Your task to perform on an android device: allow notifications from all sites in the chrome app Image 0: 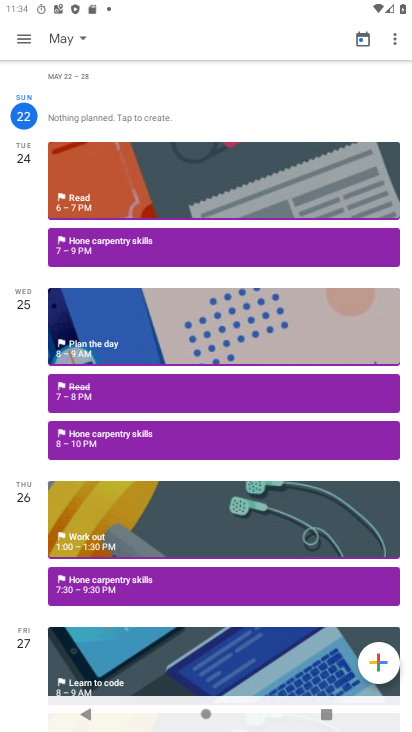
Step 0: press home button
Your task to perform on an android device: allow notifications from all sites in the chrome app Image 1: 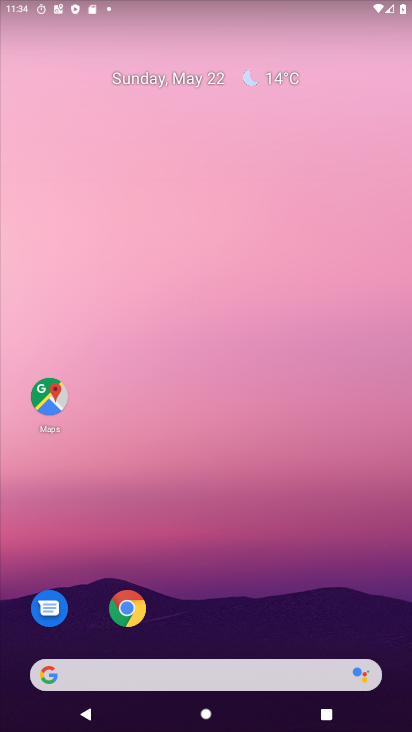
Step 1: drag from (217, 707) to (204, 157)
Your task to perform on an android device: allow notifications from all sites in the chrome app Image 2: 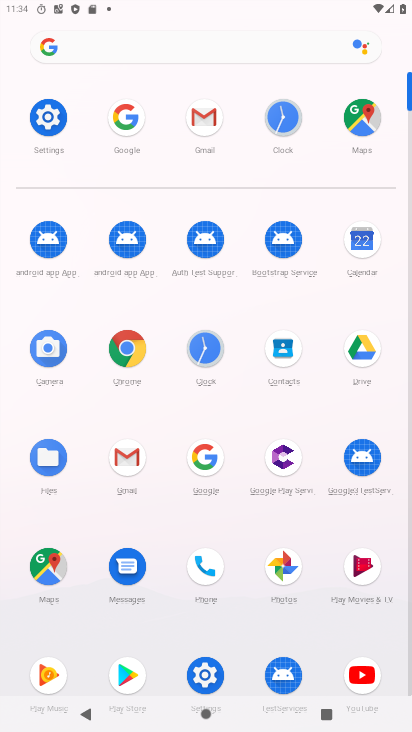
Step 2: click (129, 349)
Your task to perform on an android device: allow notifications from all sites in the chrome app Image 3: 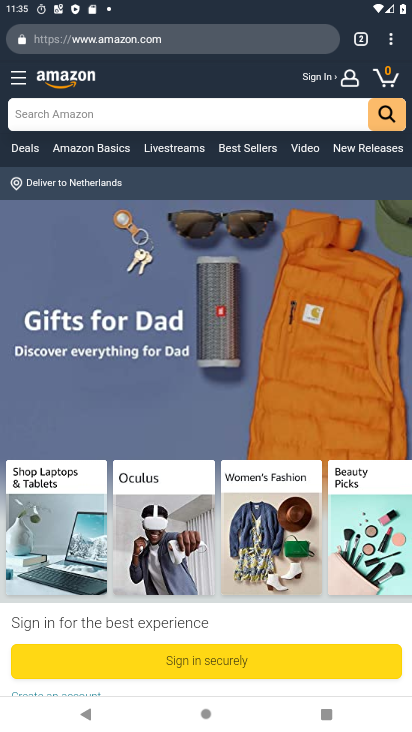
Step 3: click (393, 46)
Your task to perform on an android device: allow notifications from all sites in the chrome app Image 4: 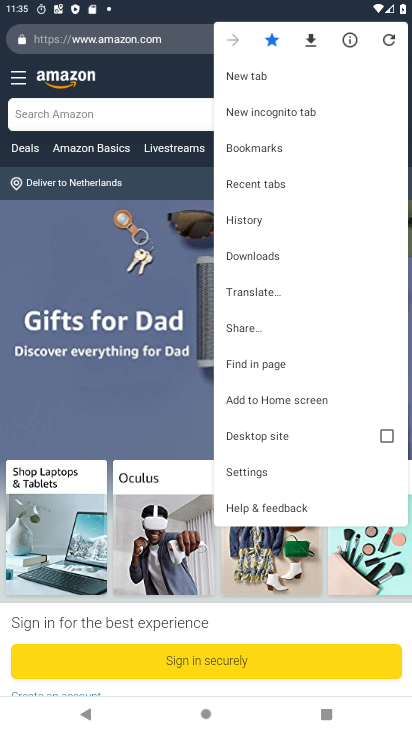
Step 4: click (247, 468)
Your task to perform on an android device: allow notifications from all sites in the chrome app Image 5: 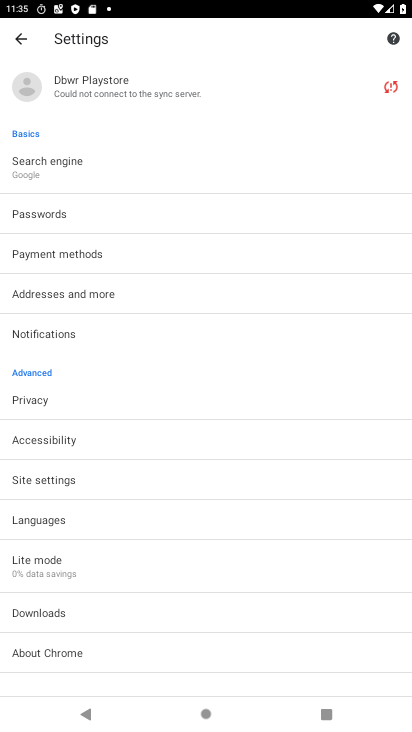
Step 5: click (47, 473)
Your task to perform on an android device: allow notifications from all sites in the chrome app Image 6: 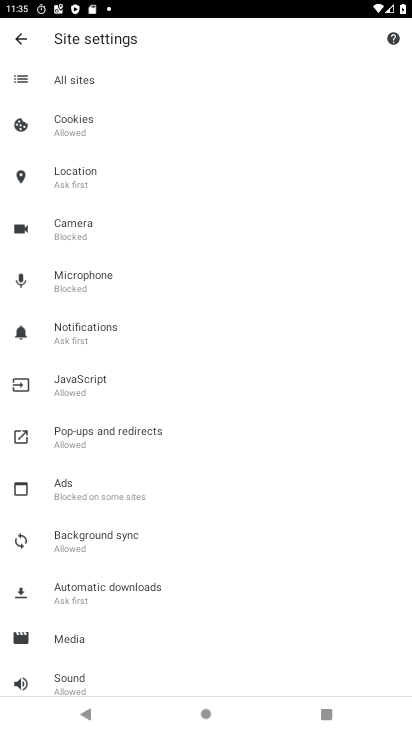
Step 6: click (85, 325)
Your task to perform on an android device: allow notifications from all sites in the chrome app Image 7: 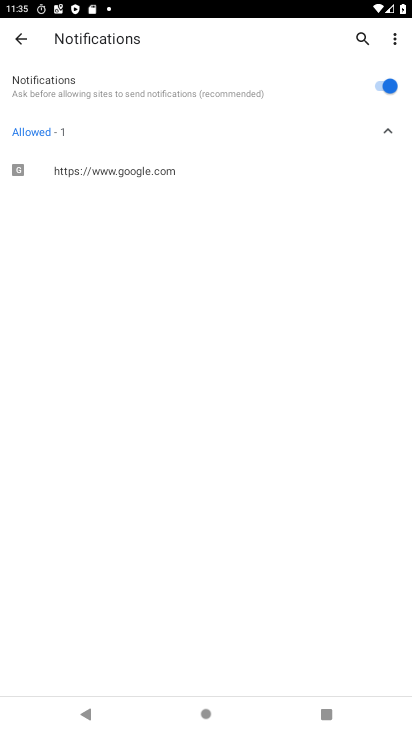
Step 7: task complete